Your task to perform on an android device: Go to notification settings Image 0: 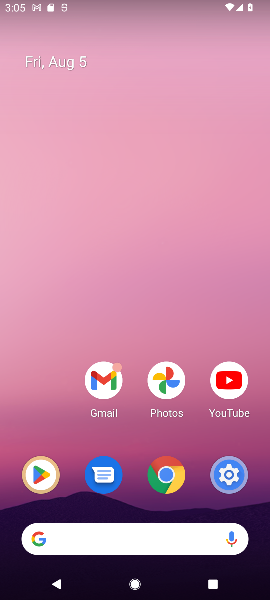
Step 0: drag from (46, 413) to (63, 128)
Your task to perform on an android device: Go to notification settings Image 1: 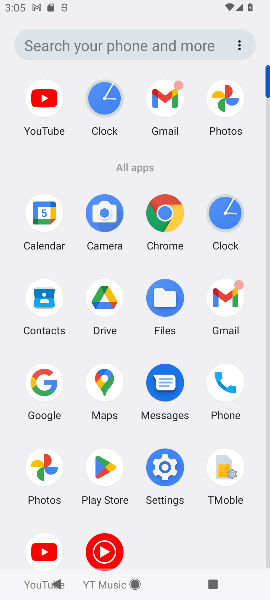
Step 1: click (168, 454)
Your task to perform on an android device: Go to notification settings Image 2: 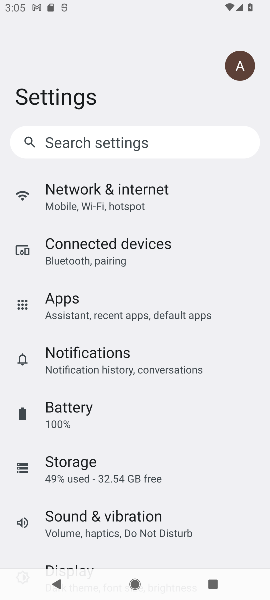
Step 2: drag from (223, 442) to (233, 359)
Your task to perform on an android device: Go to notification settings Image 3: 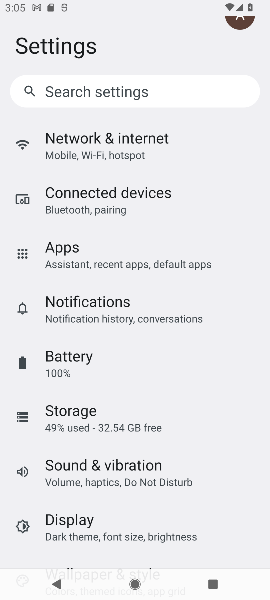
Step 3: drag from (235, 462) to (239, 342)
Your task to perform on an android device: Go to notification settings Image 4: 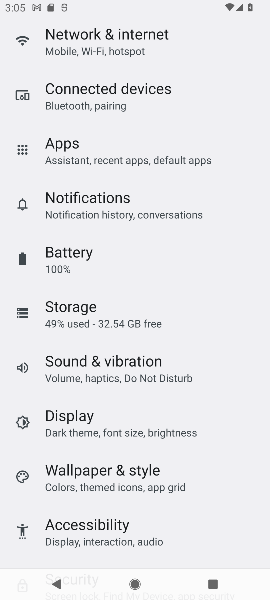
Step 4: drag from (224, 484) to (226, 393)
Your task to perform on an android device: Go to notification settings Image 5: 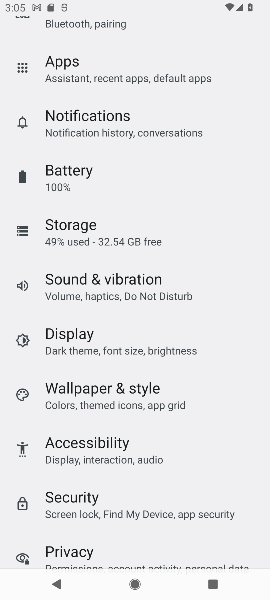
Step 5: drag from (232, 517) to (237, 403)
Your task to perform on an android device: Go to notification settings Image 6: 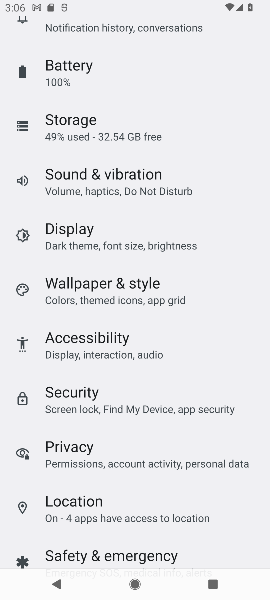
Step 6: drag from (237, 513) to (240, 418)
Your task to perform on an android device: Go to notification settings Image 7: 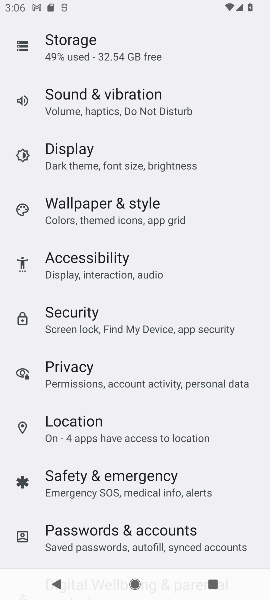
Step 7: drag from (240, 259) to (243, 353)
Your task to perform on an android device: Go to notification settings Image 8: 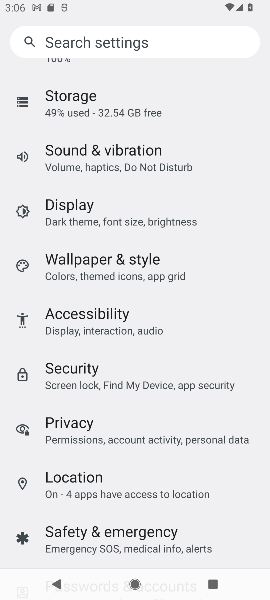
Step 8: drag from (235, 217) to (235, 300)
Your task to perform on an android device: Go to notification settings Image 9: 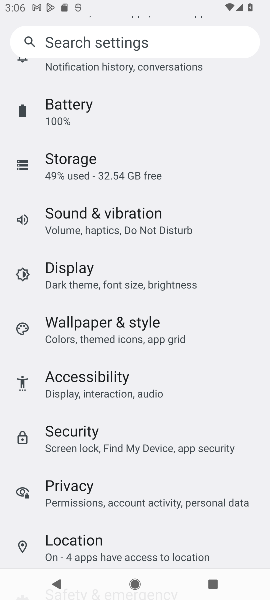
Step 9: drag from (226, 189) to (228, 307)
Your task to perform on an android device: Go to notification settings Image 10: 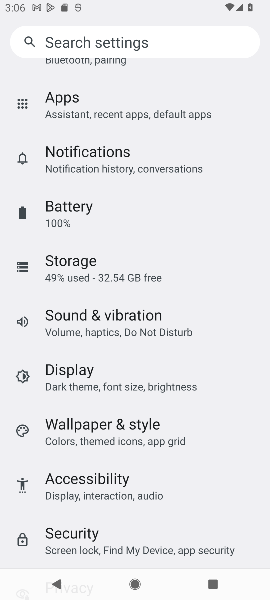
Step 10: drag from (237, 159) to (231, 416)
Your task to perform on an android device: Go to notification settings Image 11: 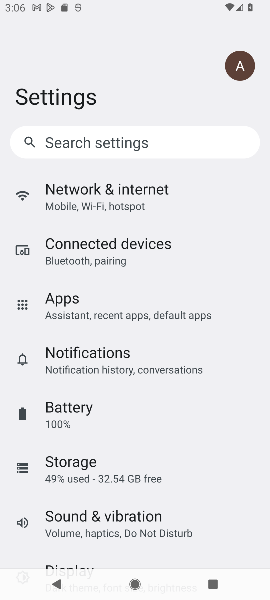
Step 11: click (172, 363)
Your task to perform on an android device: Go to notification settings Image 12: 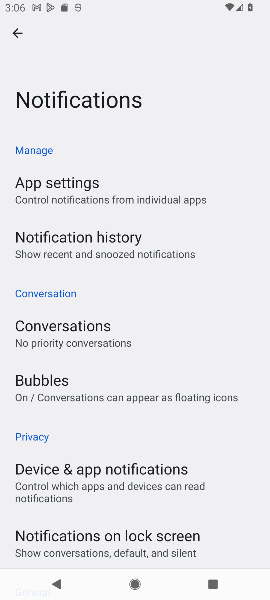
Step 12: task complete